Your task to perform on an android device: turn off wifi Image 0: 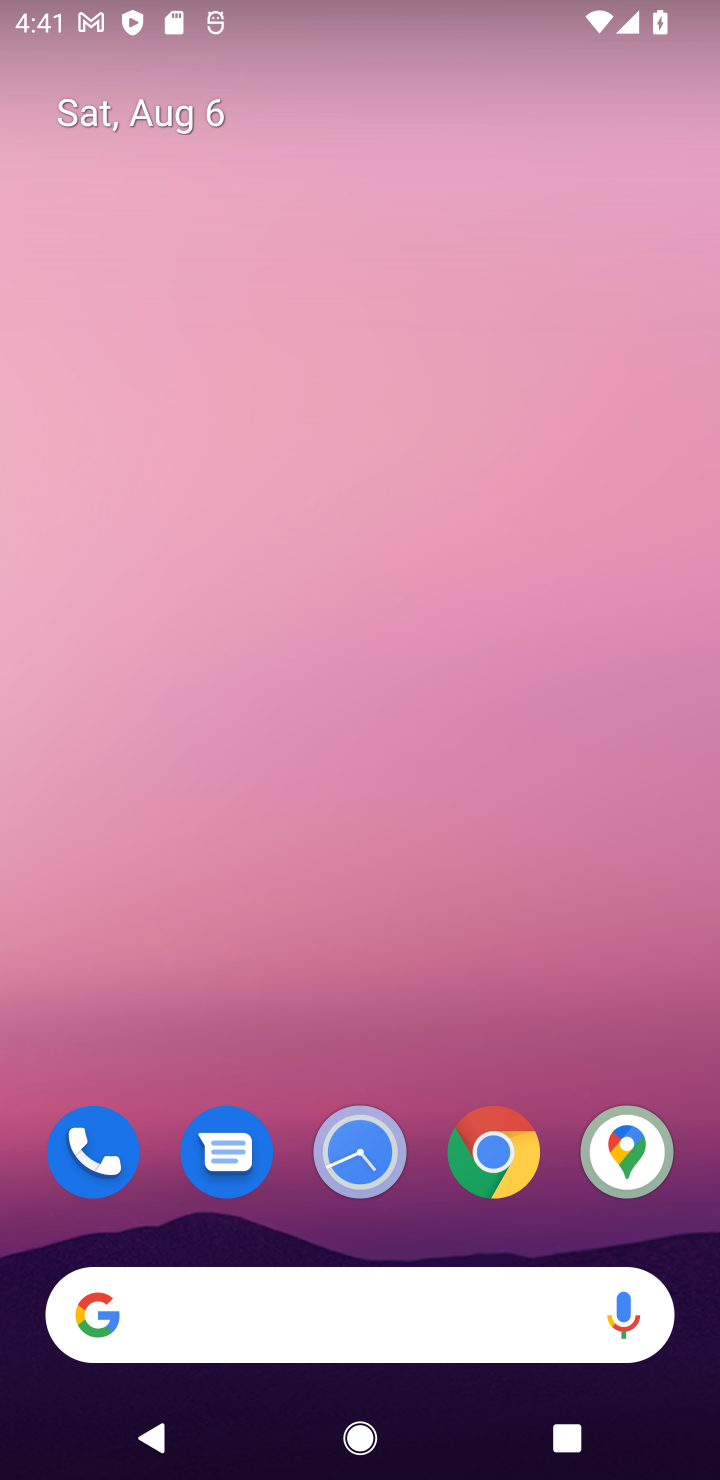
Step 0: drag from (451, 1035) to (645, 393)
Your task to perform on an android device: turn off wifi Image 1: 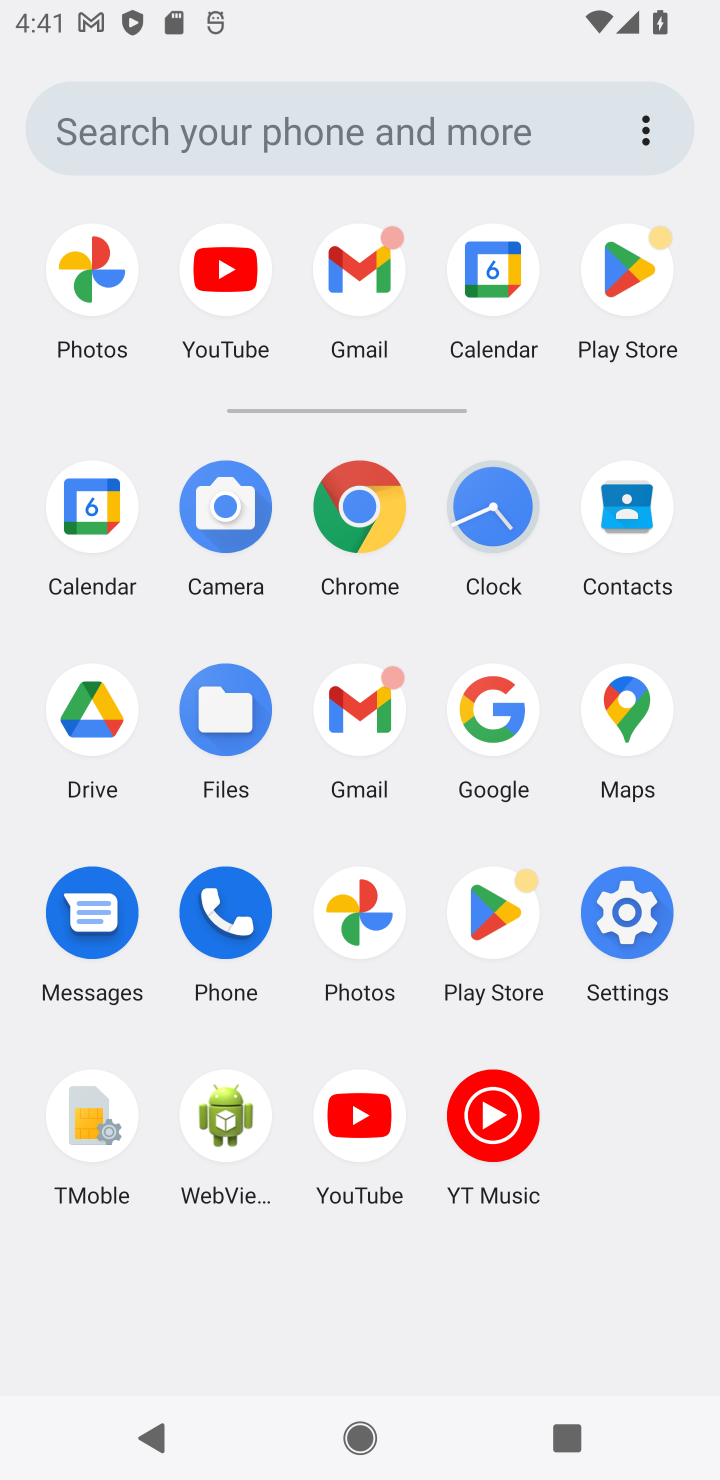
Step 1: click (628, 939)
Your task to perform on an android device: turn off wifi Image 2: 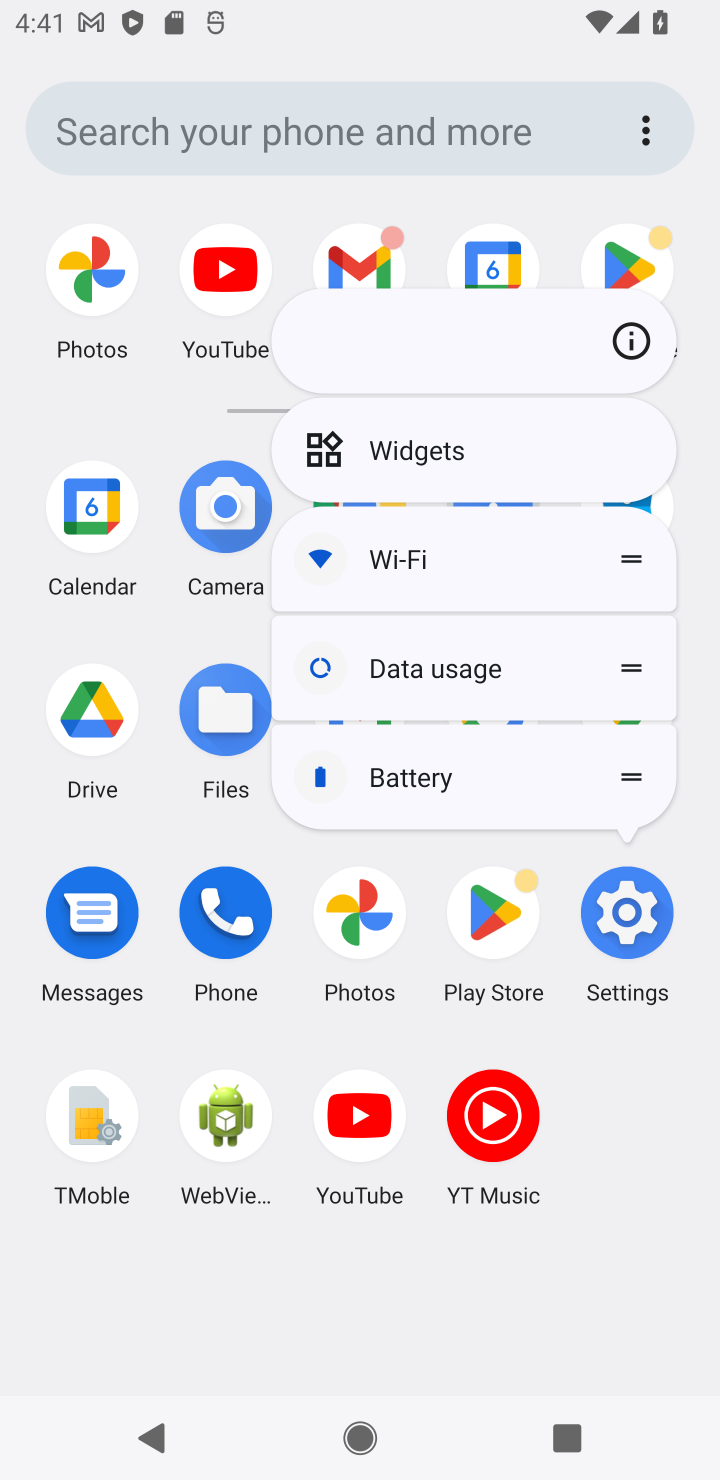
Step 2: click (625, 915)
Your task to perform on an android device: turn off wifi Image 3: 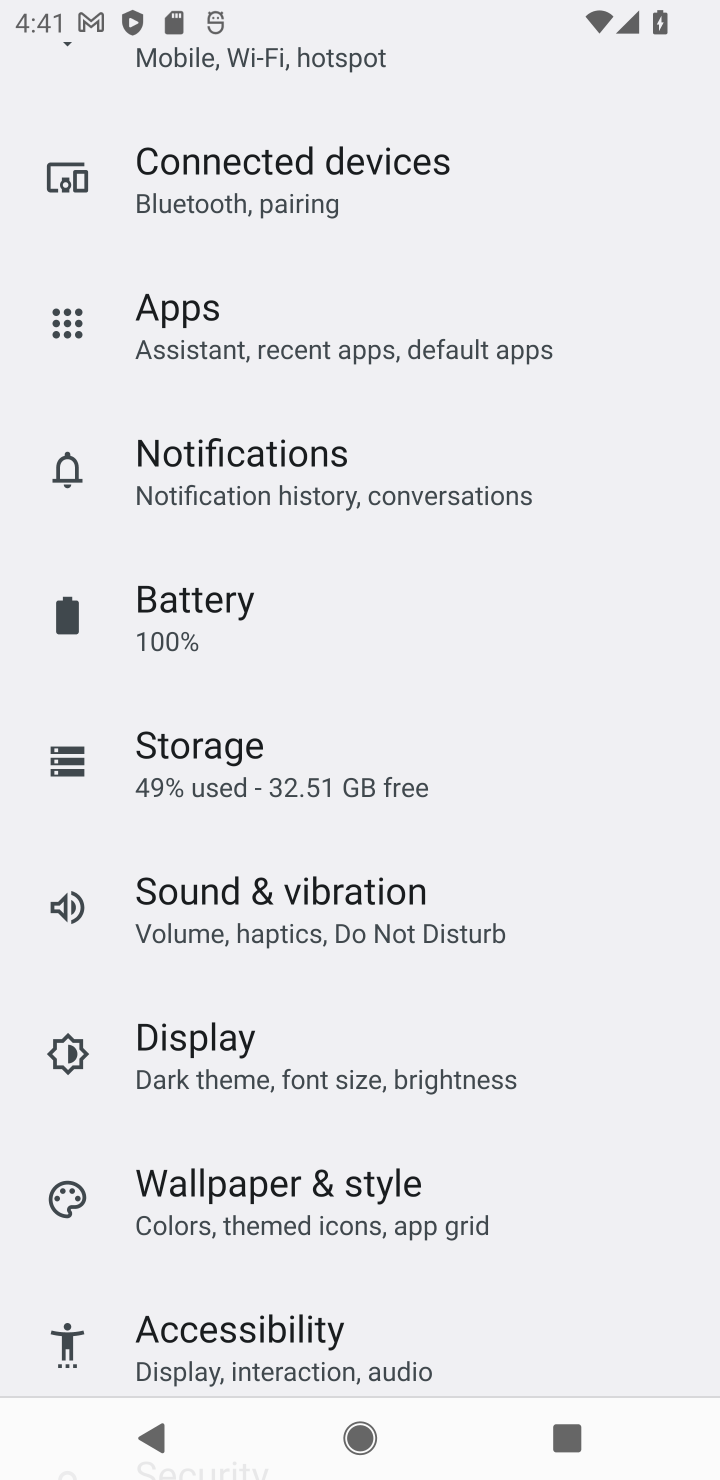
Step 3: drag from (407, 276) to (319, 1184)
Your task to perform on an android device: turn off wifi Image 4: 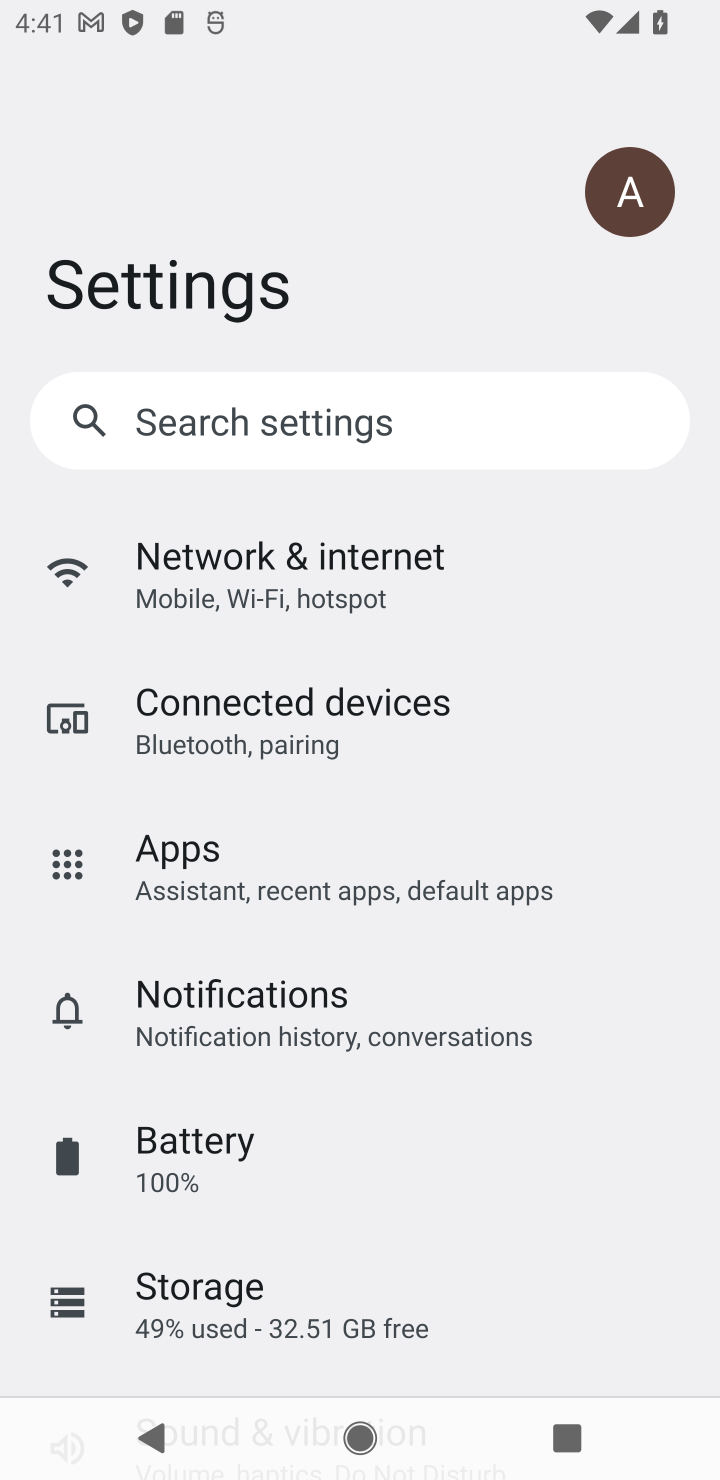
Step 4: click (338, 588)
Your task to perform on an android device: turn off wifi Image 5: 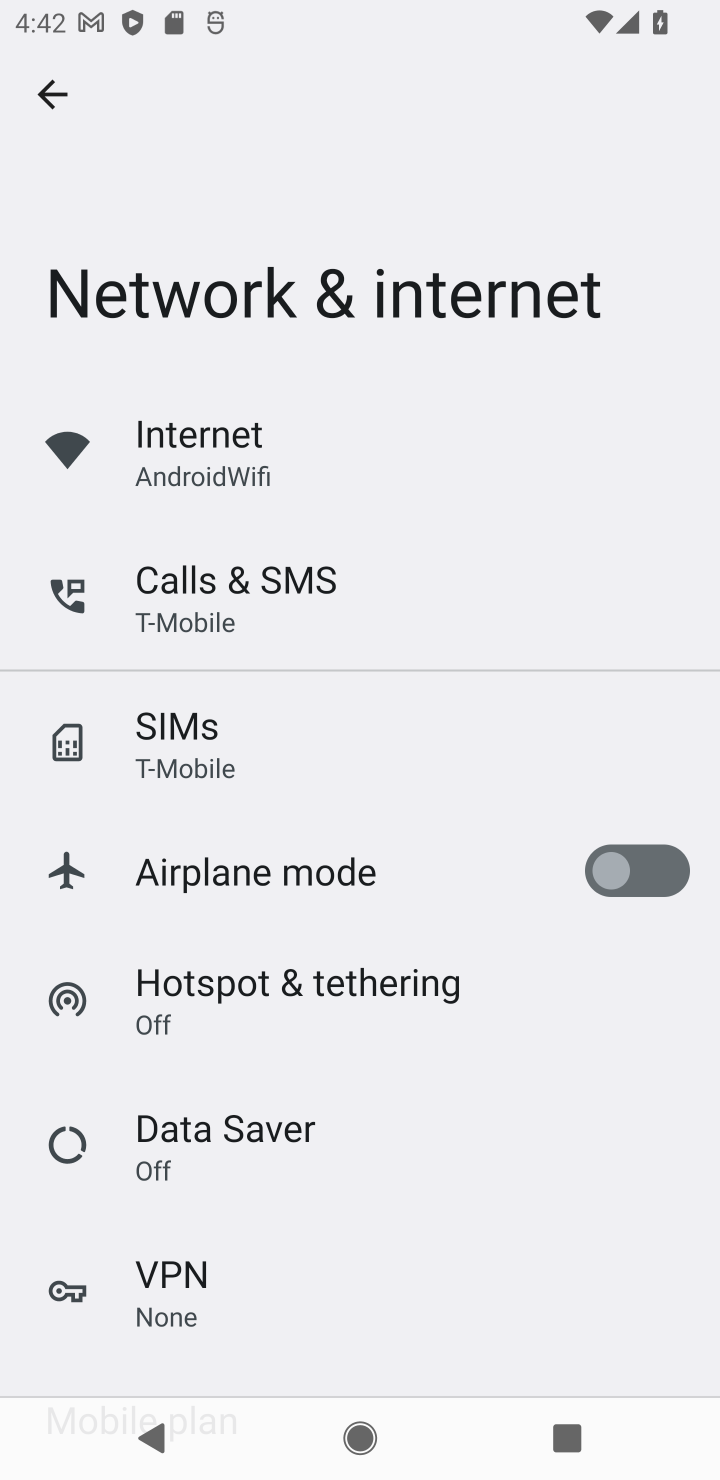
Step 5: click (256, 471)
Your task to perform on an android device: turn off wifi Image 6: 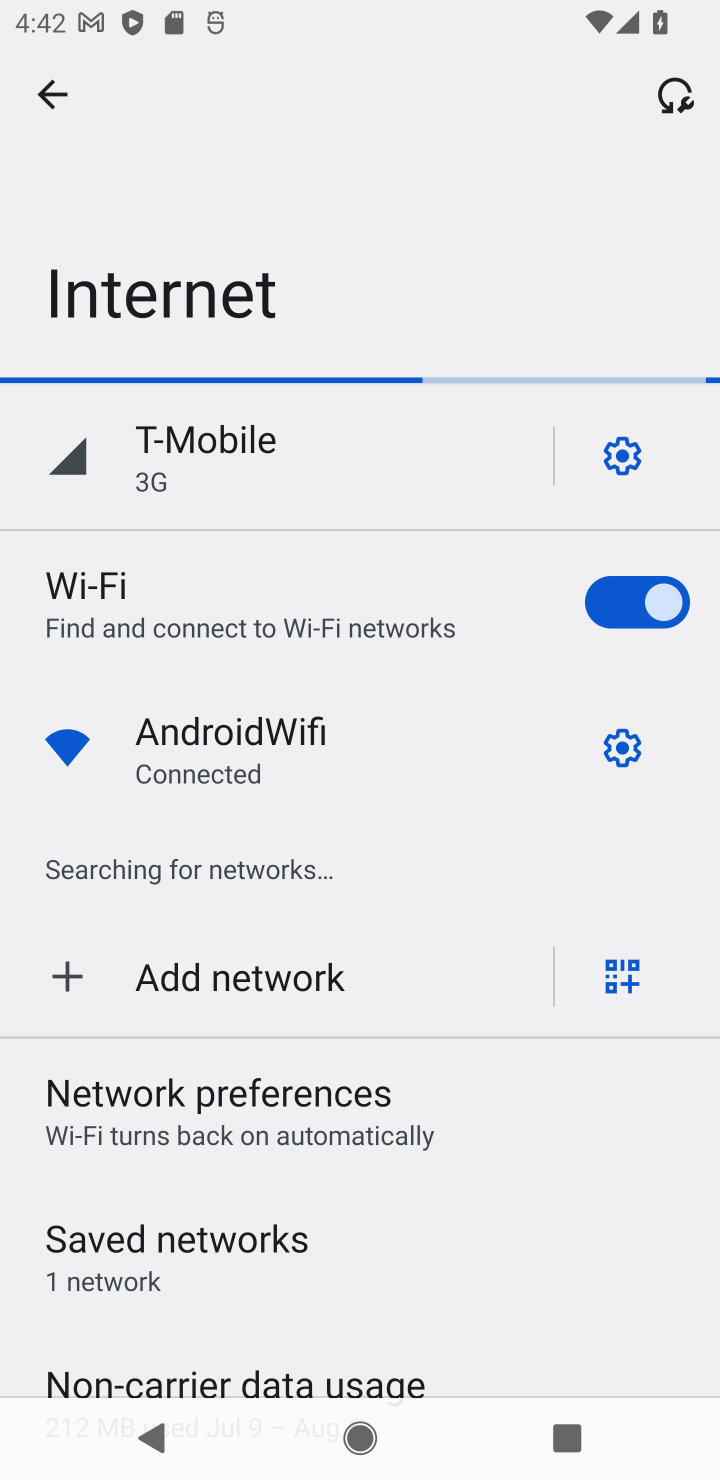
Step 6: click (627, 451)
Your task to perform on an android device: turn off wifi Image 7: 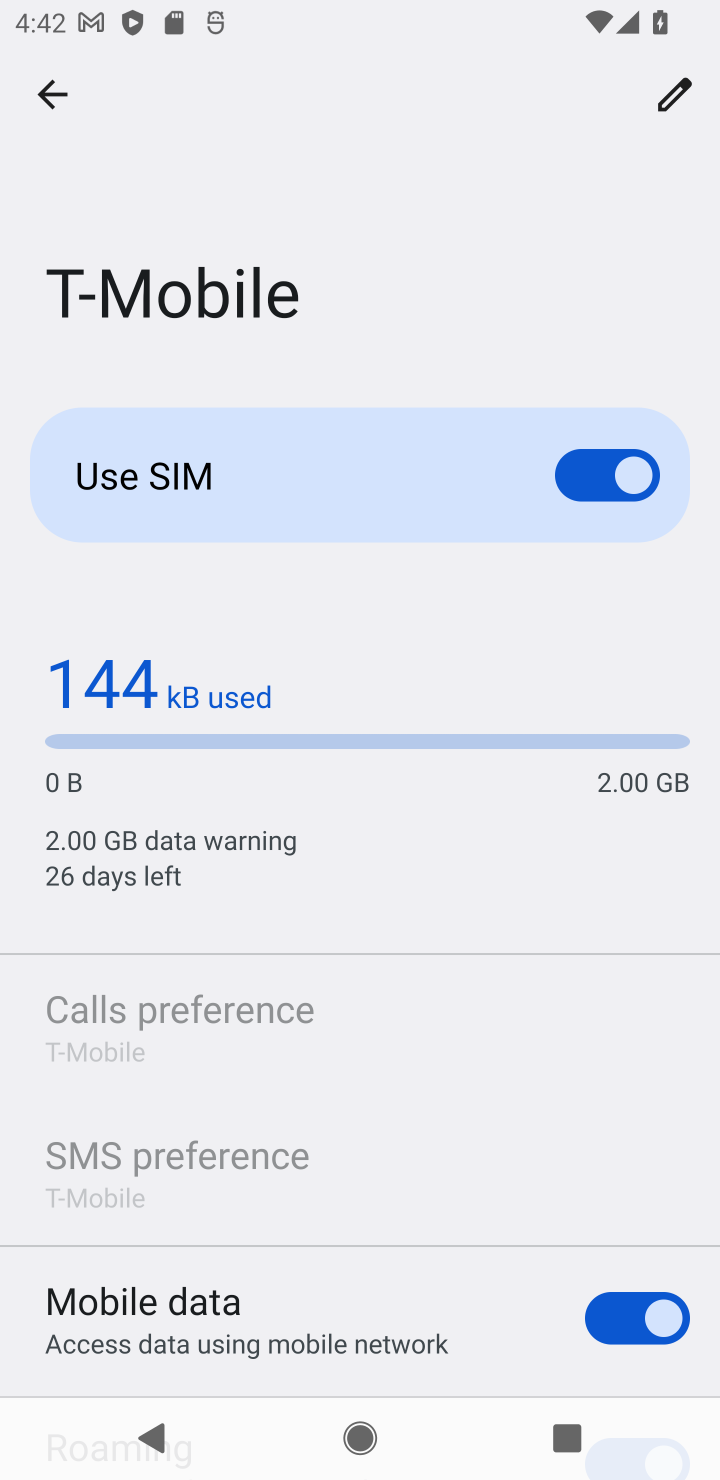
Step 7: click (627, 451)
Your task to perform on an android device: turn off wifi Image 8: 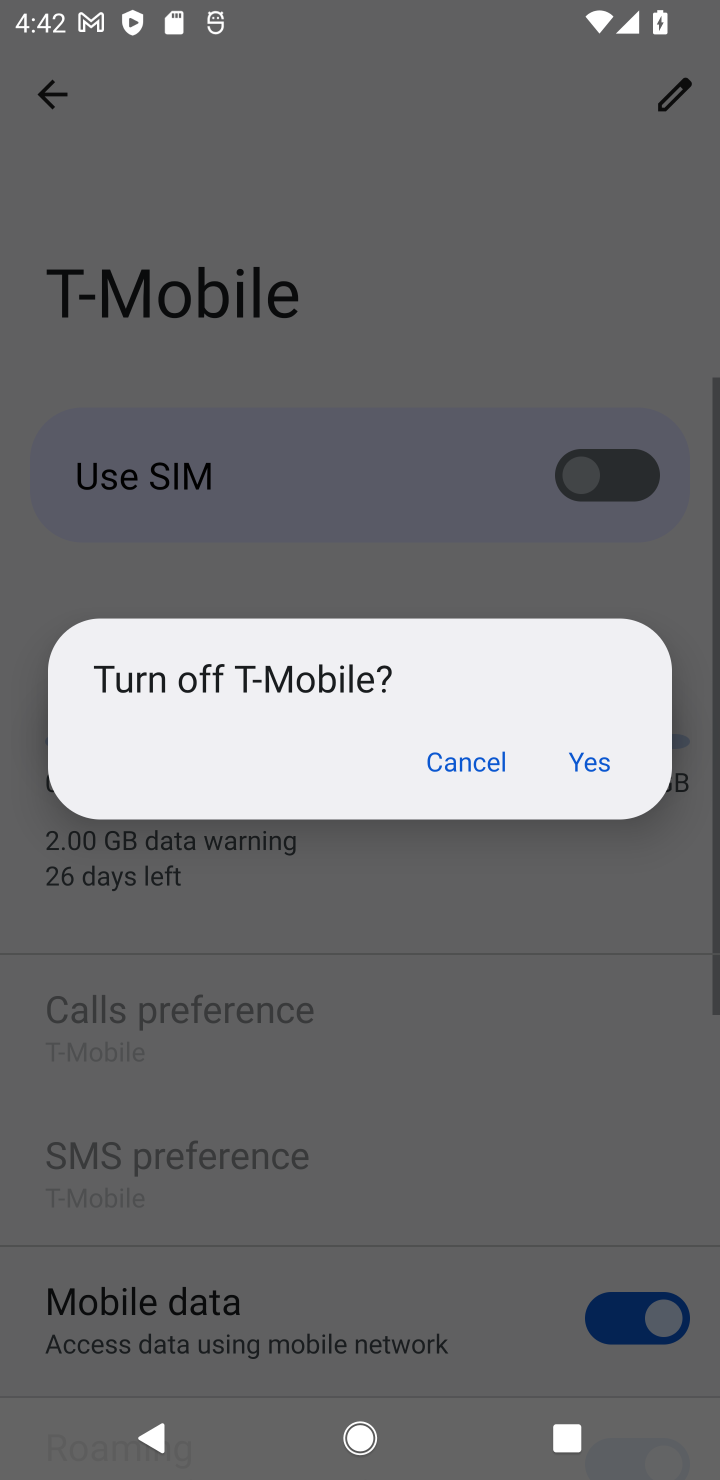
Step 8: task complete